Your task to perform on an android device: toggle show notifications on the lock screen Image 0: 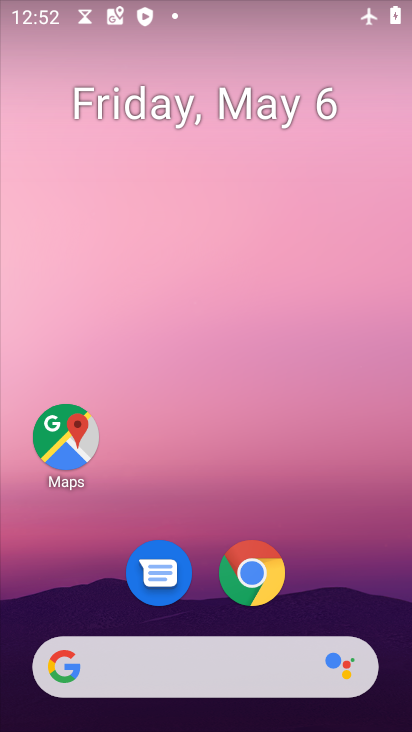
Step 0: drag from (335, 568) to (319, 224)
Your task to perform on an android device: toggle show notifications on the lock screen Image 1: 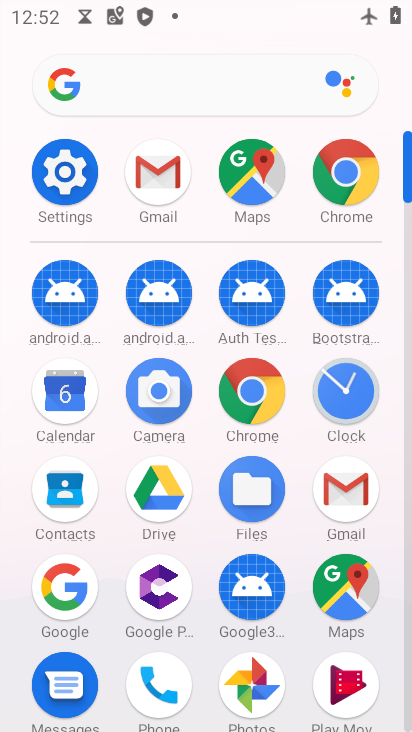
Step 1: click (57, 175)
Your task to perform on an android device: toggle show notifications on the lock screen Image 2: 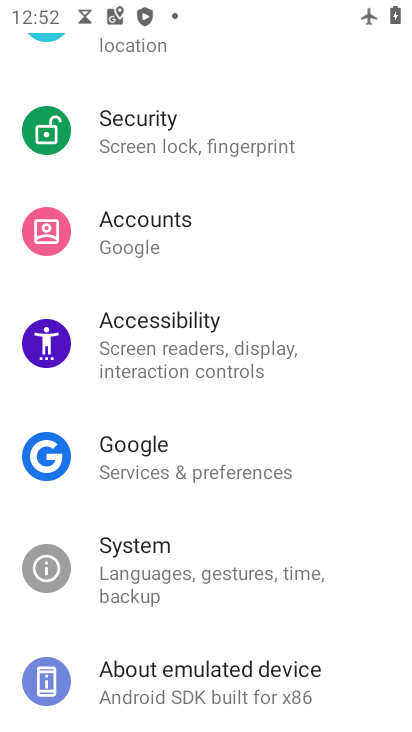
Step 2: drag from (261, 161) to (265, 661)
Your task to perform on an android device: toggle show notifications on the lock screen Image 3: 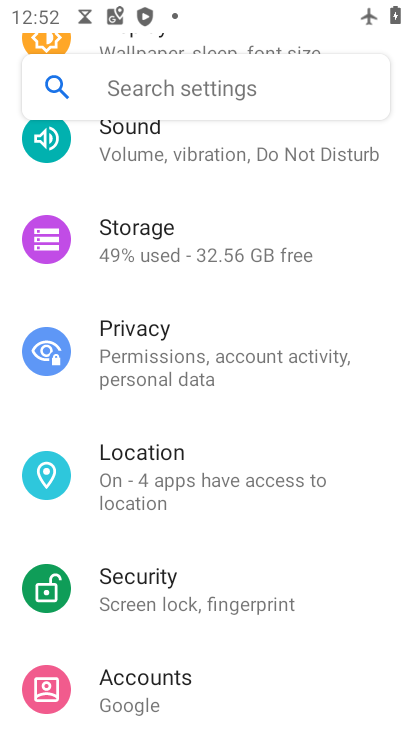
Step 3: drag from (225, 194) to (250, 638)
Your task to perform on an android device: toggle show notifications on the lock screen Image 4: 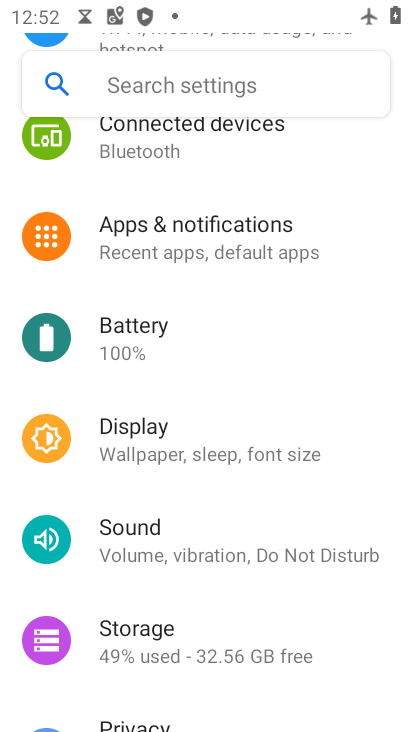
Step 4: click (253, 245)
Your task to perform on an android device: toggle show notifications on the lock screen Image 5: 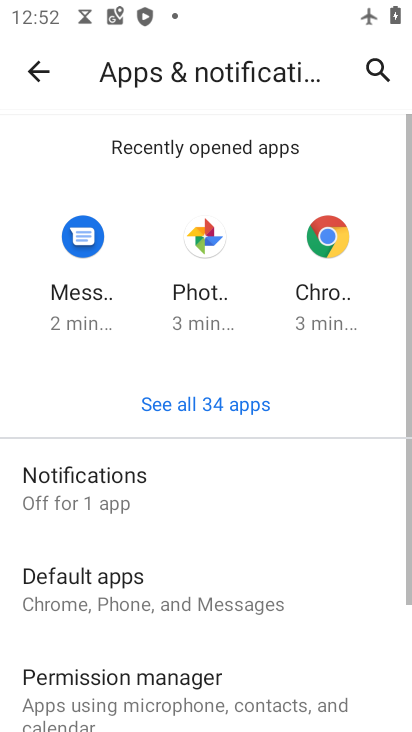
Step 5: click (139, 506)
Your task to perform on an android device: toggle show notifications on the lock screen Image 6: 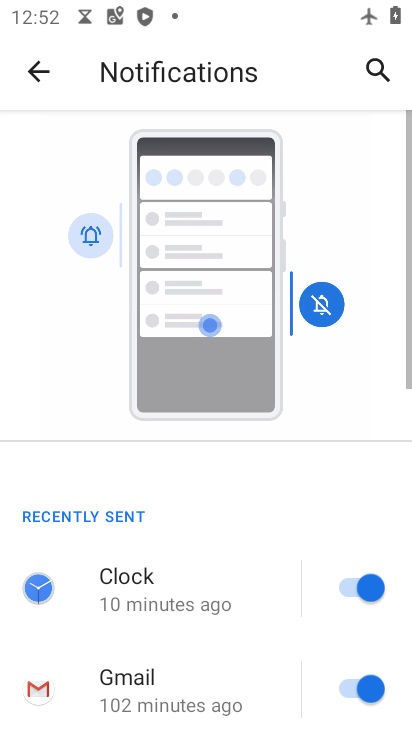
Step 6: drag from (196, 625) to (279, 146)
Your task to perform on an android device: toggle show notifications on the lock screen Image 7: 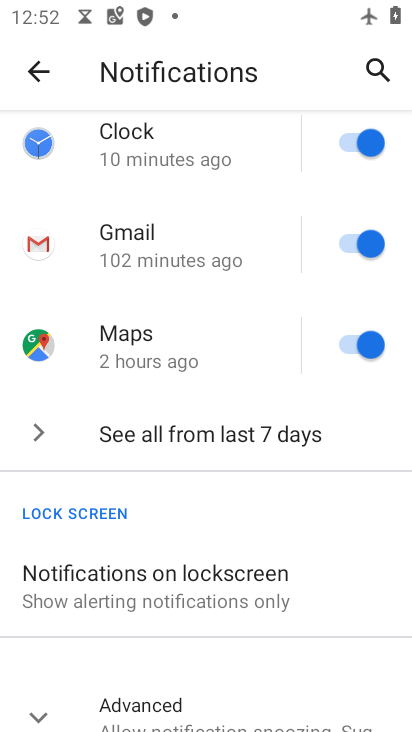
Step 7: click (239, 607)
Your task to perform on an android device: toggle show notifications on the lock screen Image 8: 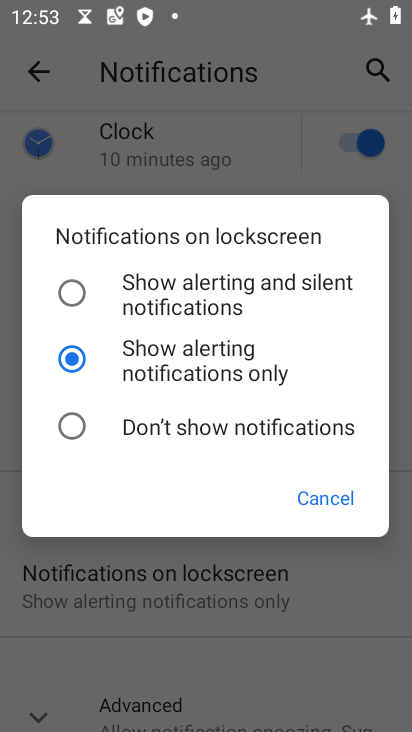
Step 8: task complete